Your task to perform on an android device: Open the map Image 0: 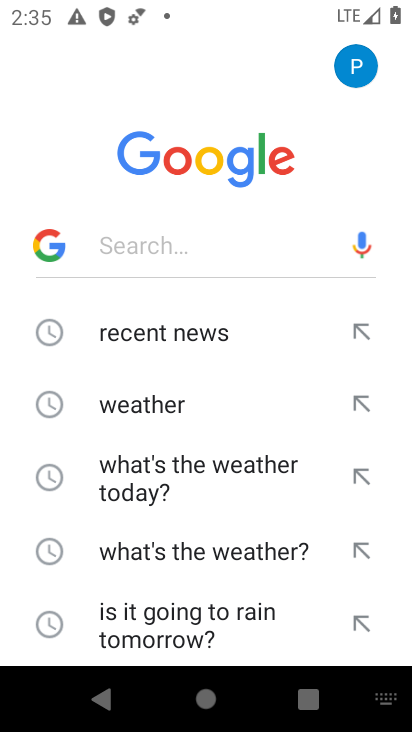
Step 0: press home button
Your task to perform on an android device: Open the map Image 1: 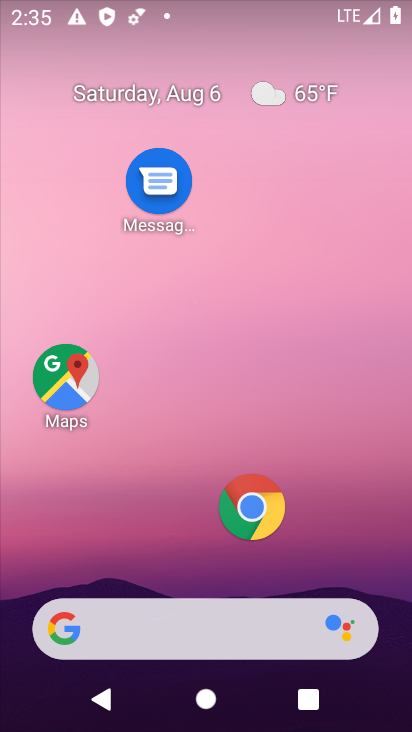
Step 1: click (65, 381)
Your task to perform on an android device: Open the map Image 2: 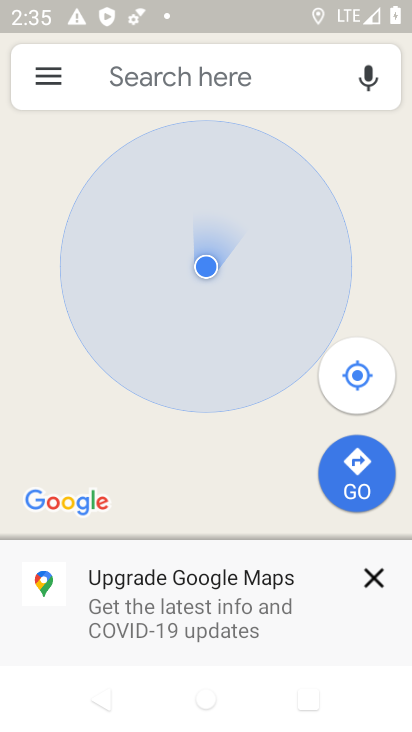
Step 2: click (370, 576)
Your task to perform on an android device: Open the map Image 3: 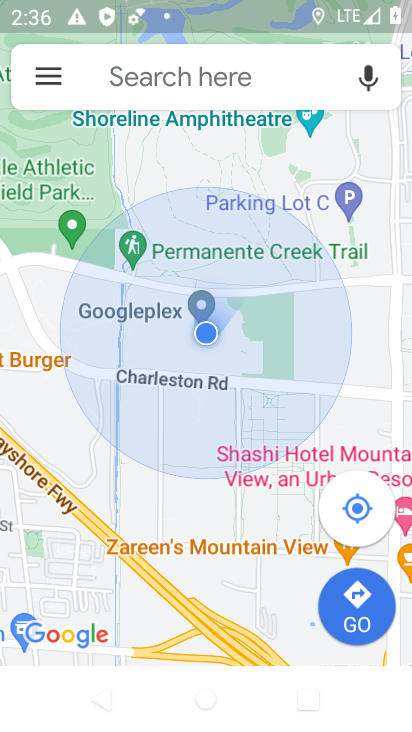
Step 3: task complete